Your task to perform on an android device: turn off translation in the chrome app Image 0: 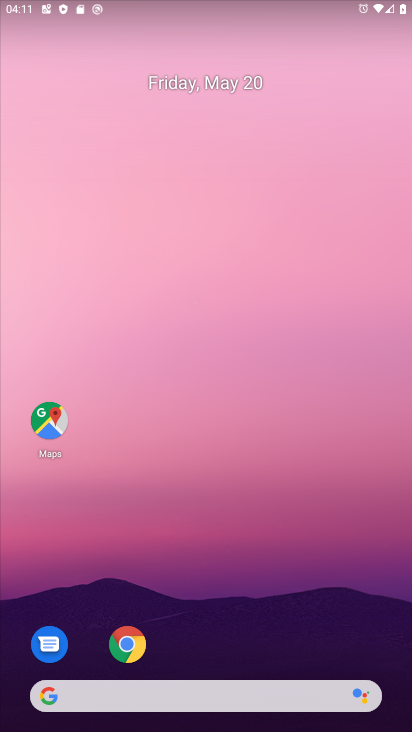
Step 0: drag from (330, 596) to (314, 80)
Your task to perform on an android device: turn off translation in the chrome app Image 1: 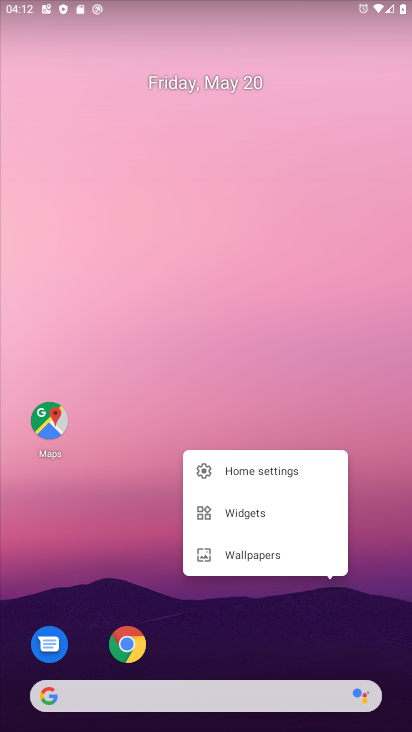
Step 1: click (131, 649)
Your task to perform on an android device: turn off translation in the chrome app Image 2: 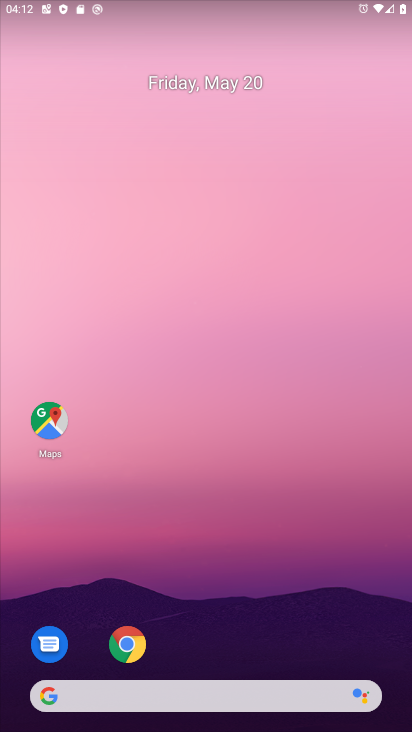
Step 2: click (131, 649)
Your task to perform on an android device: turn off translation in the chrome app Image 3: 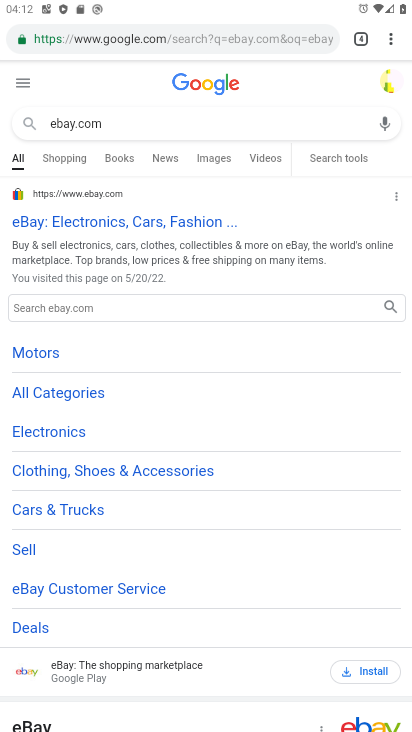
Step 3: click (390, 43)
Your task to perform on an android device: turn off translation in the chrome app Image 4: 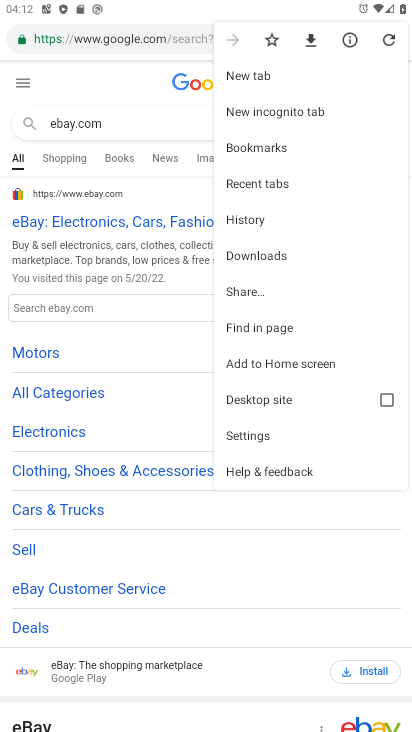
Step 4: click (298, 430)
Your task to perform on an android device: turn off translation in the chrome app Image 5: 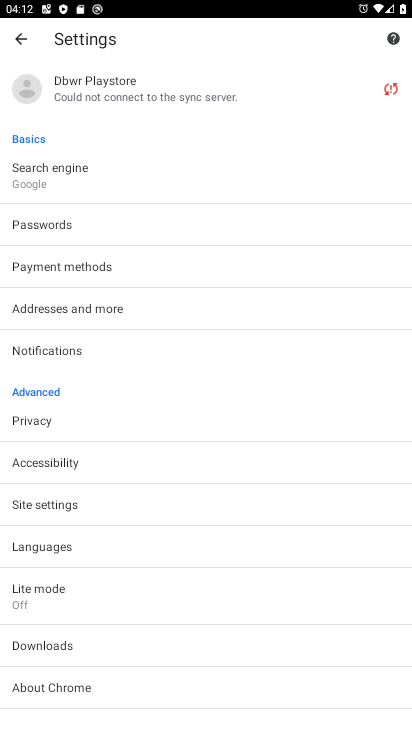
Step 5: click (238, 536)
Your task to perform on an android device: turn off translation in the chrome app Image 6: 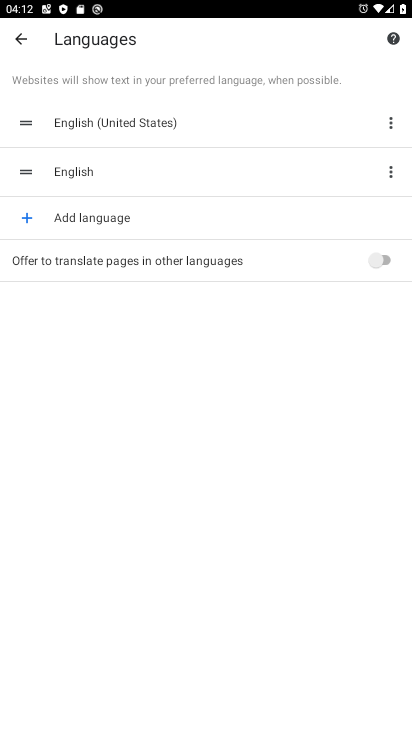
Step 6: task complete